Your task to perform on an android device: check google app version Image 0: 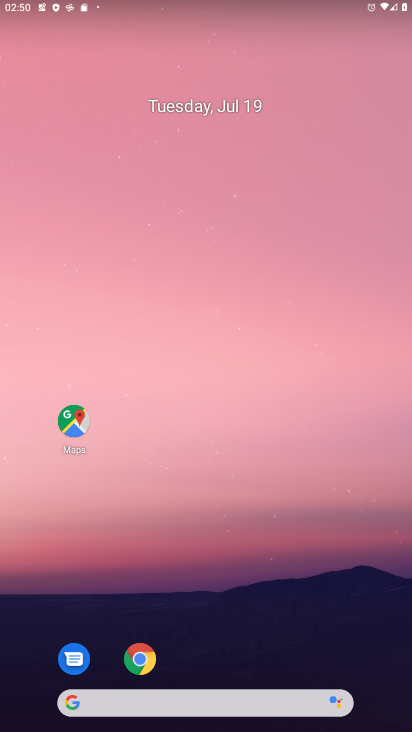
Step 0: drag from (215, 674) to (291, 49)
Your task to perform on an android device: check google app version Image 1: 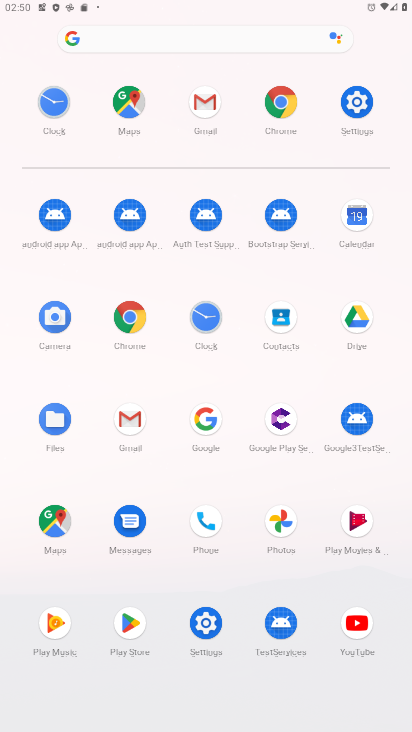
Step 1: click (199, 411)
Your task to perform on an android device: check google app version Image 2: 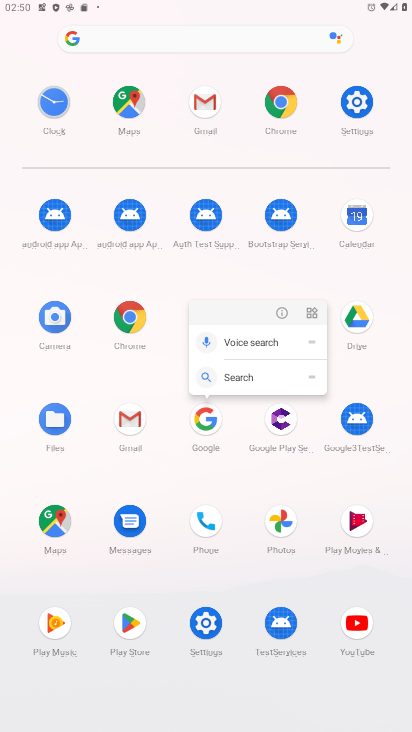
Step 2: click (279, 323)
Your task to perform on an android device: check google app version Image 3: 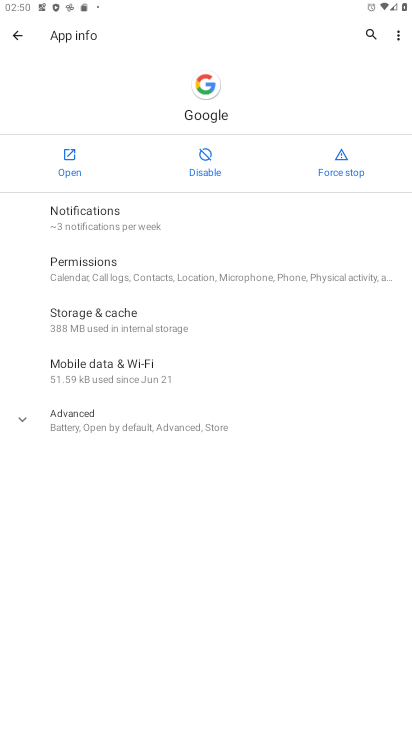
Step 3: click (96, 404)
Your task to perform on an android device: check google app version Image 4: 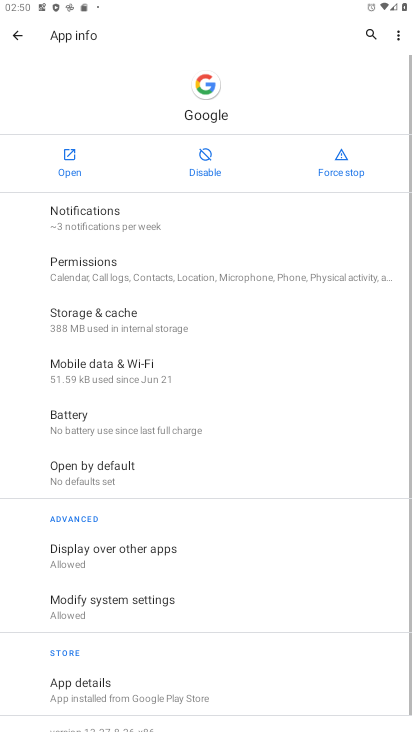
Step 4: task complete